Your task to perform on an android device: Open the map Image 0: 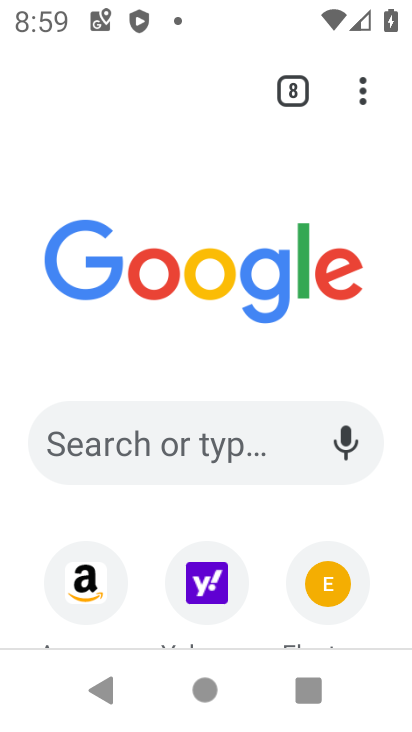
Step 0: press home button
Your task to perform on an android device: Open the map Image 1: 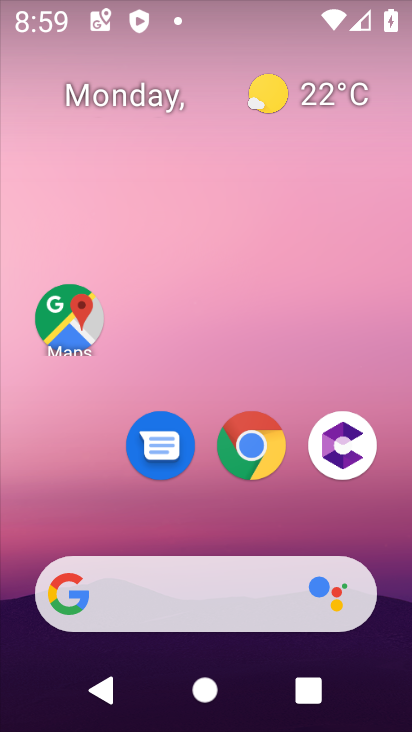
Step 1: click (74, 316)
Your task to perform on an android device: Open the map Image 2: 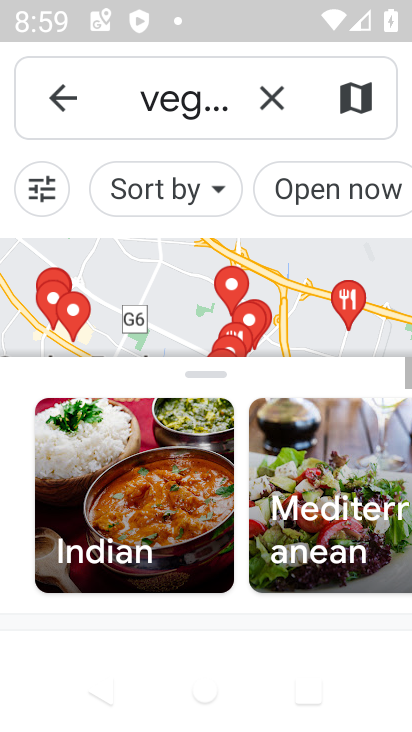
Step 2: click (277, 94)
Your task to perform on an android device: Open the map Image 3: 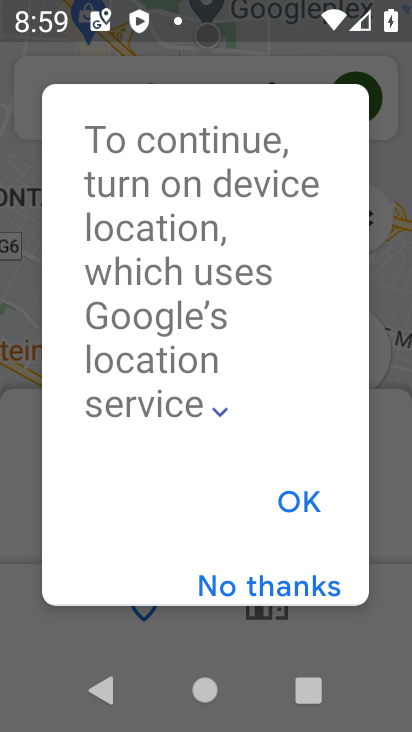
Step 3: click (298, 493)
Your task to perform on an android device: Open the map Image 4: 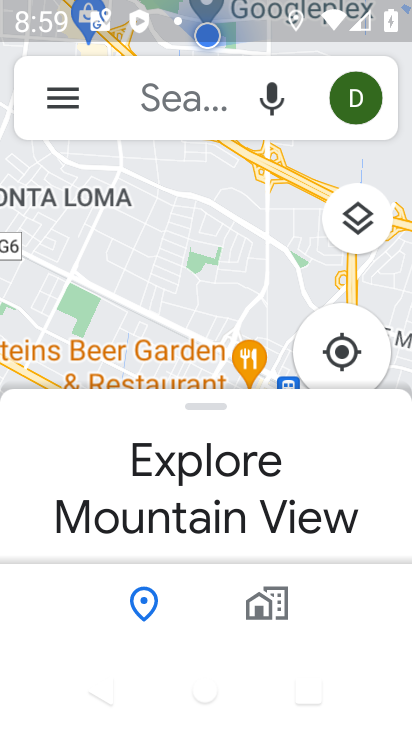
Step 4: task complete